Your task to perform on an android device: stop showing notifications on the lock screen Image 0: 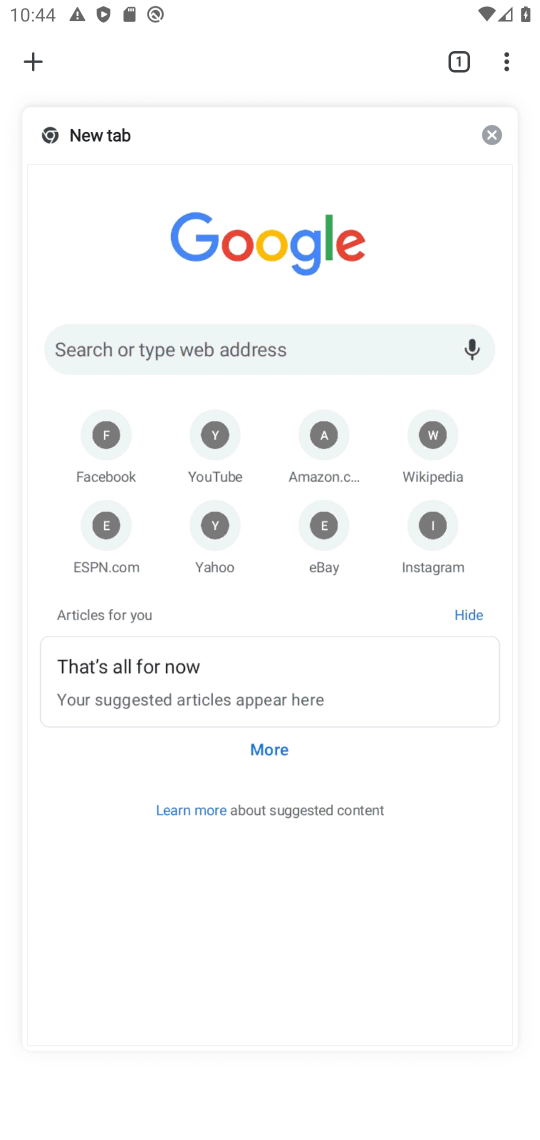
Step 0: press home button
Your task to perform on an android device: stop showing notifications on the lock screen Image 1: 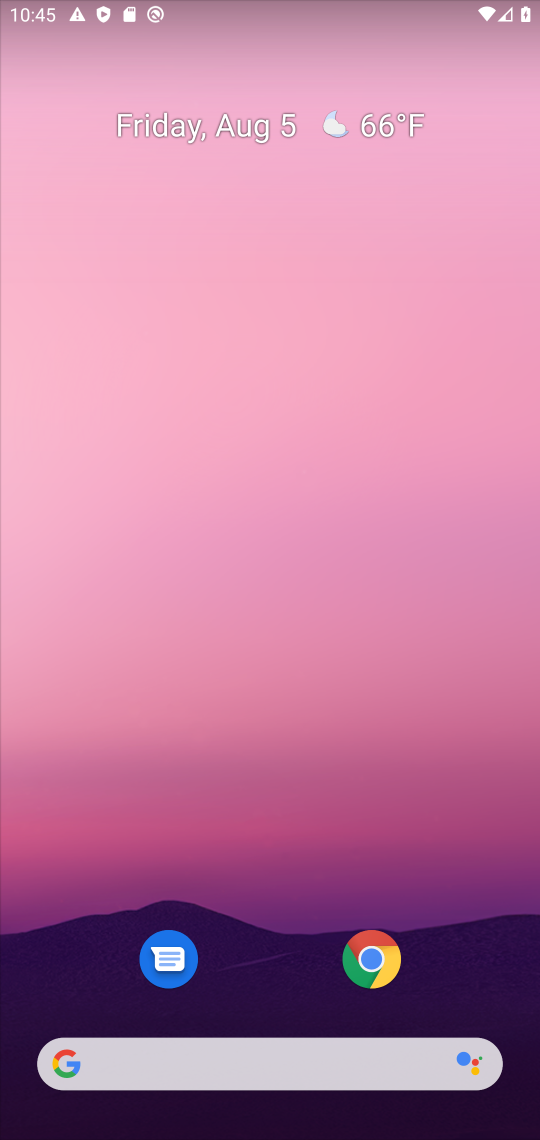
Step 1: drag from (297, 1007) to (195, 293)
Your task to perform on an android device: stop showing notifications on the lock screen Image 2: 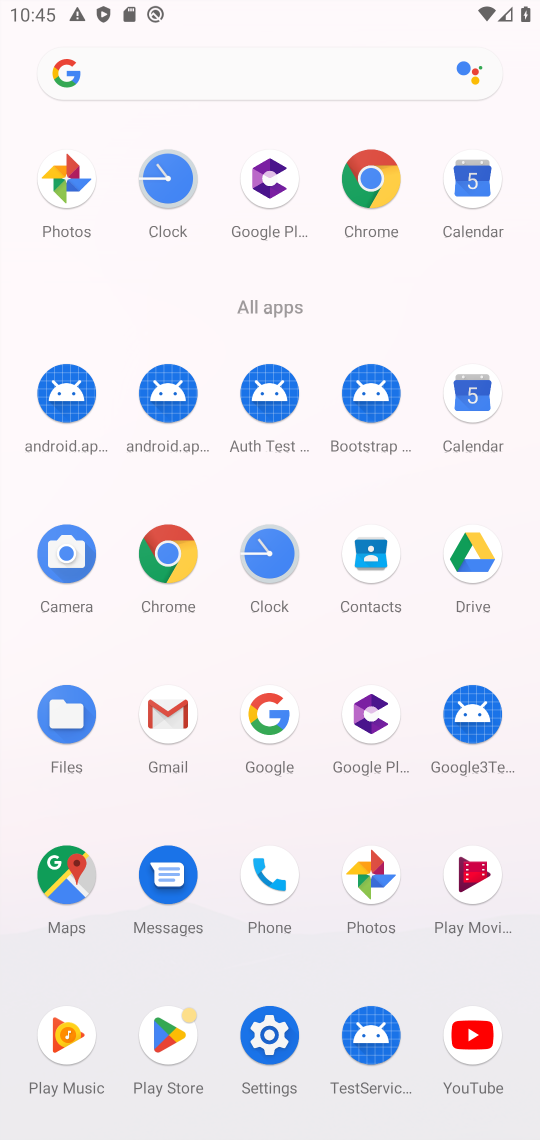
Step 2: click (267, 553)
Your task to perform on an android device: stop showing notifications on the lock screen Image 3: 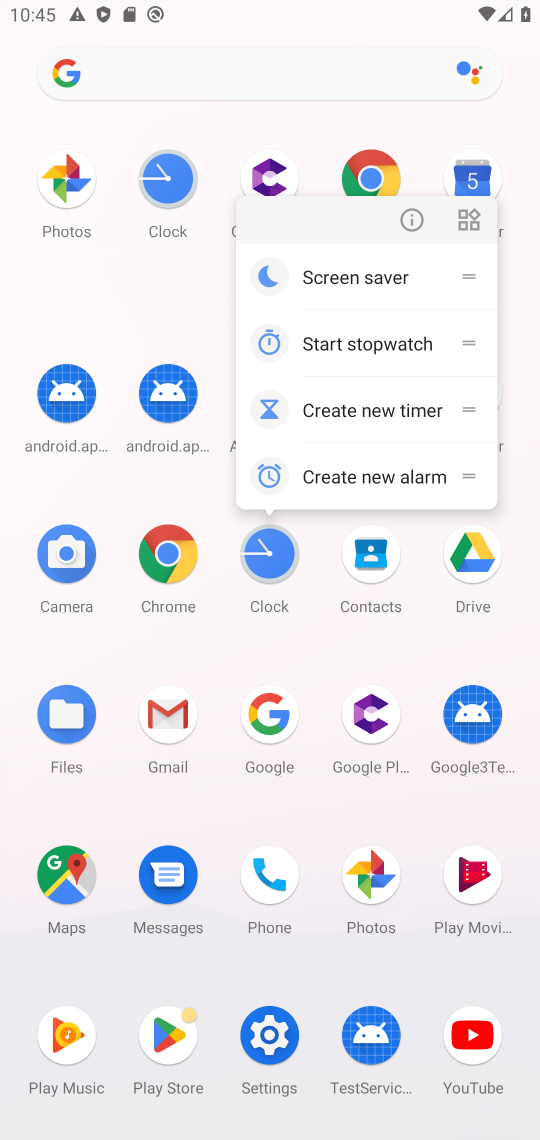
Step 3: click (283, 1041)
Your task to perform on an android device: stop showing notifications on the lock screen Image 4: 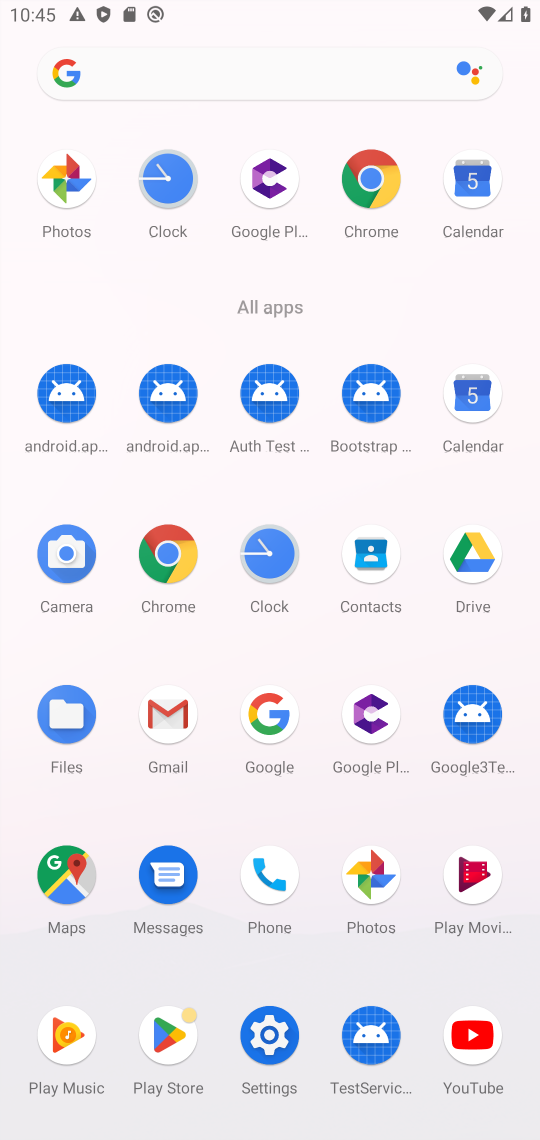
Step 4: click (266, 1044)
Your task to perform on an android device: stop showing notifications on the lock screen Image 5: 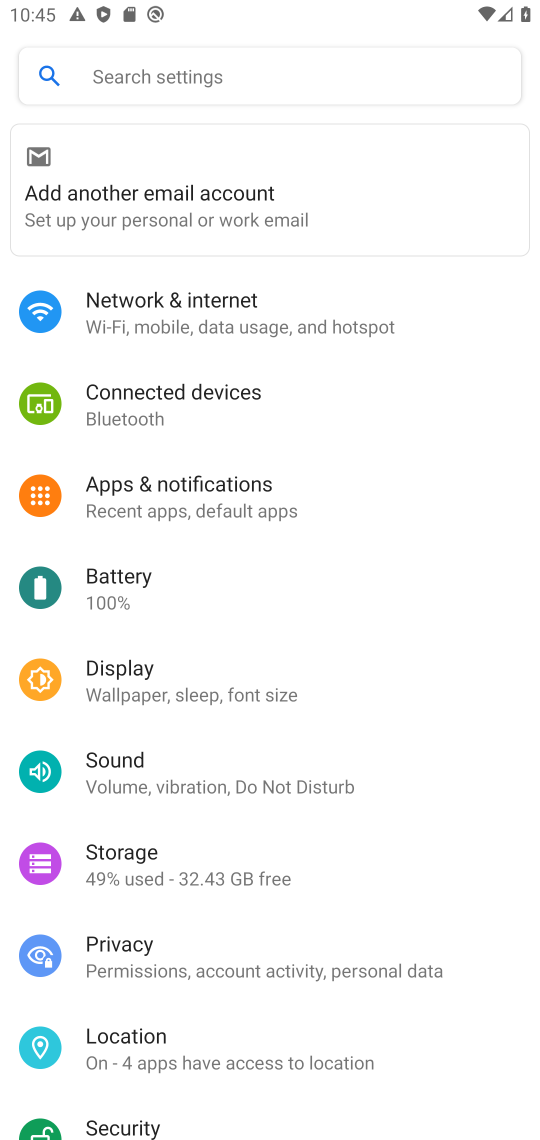
Step 5: click (190, 484)
Your task to perform on an android device: stop showing notifications on the lock screen Image 6: 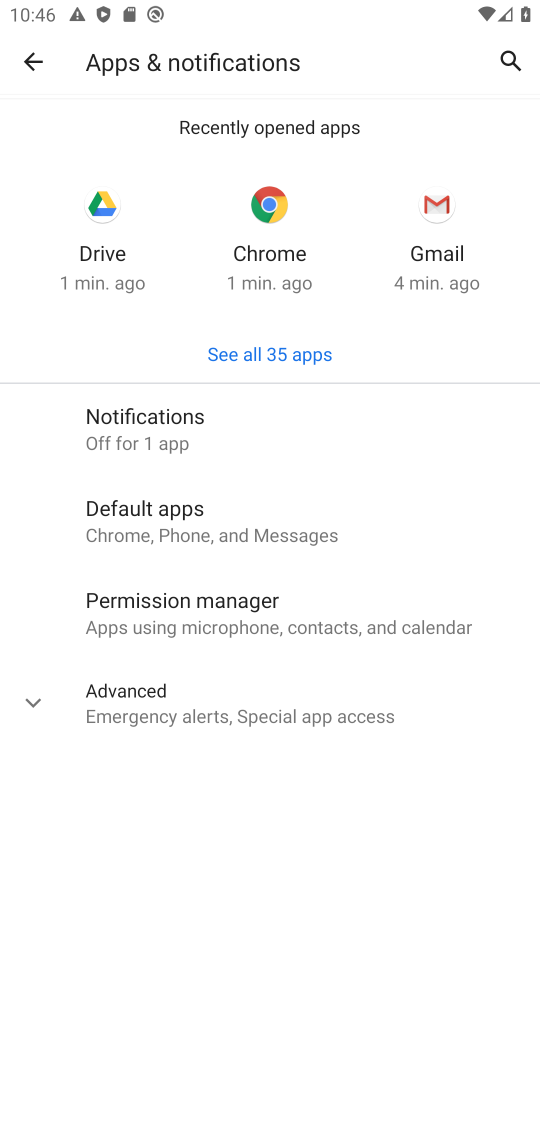
Step 6: click (189, 436)
Your task to perform on an android device: stop showing notifications on the lock screen Image 7: 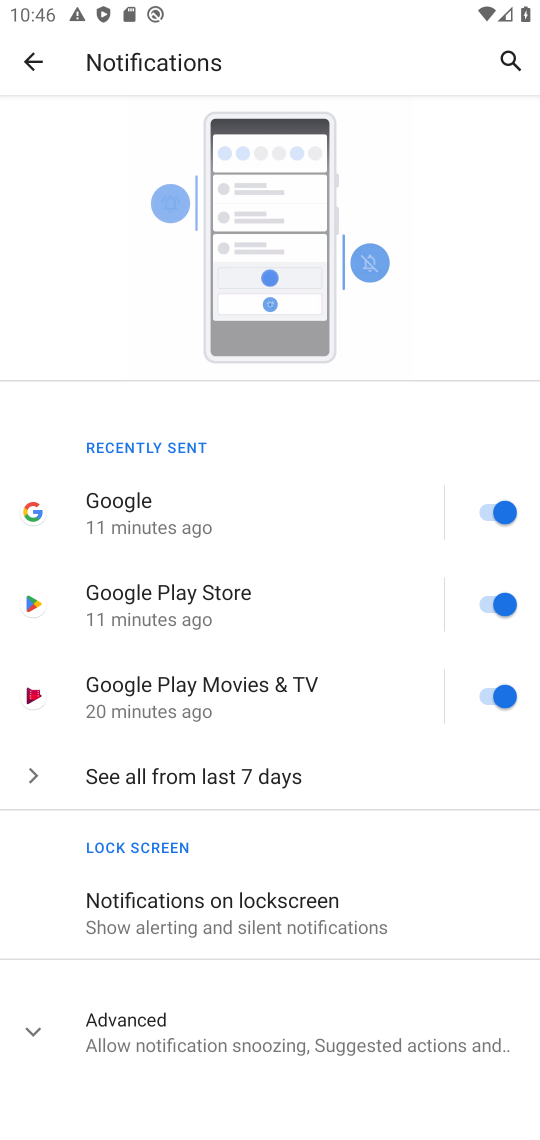
Step 7: click (310, 929)
Your task to perform on an android device: stop showing notifications on the lock screen Image 8: 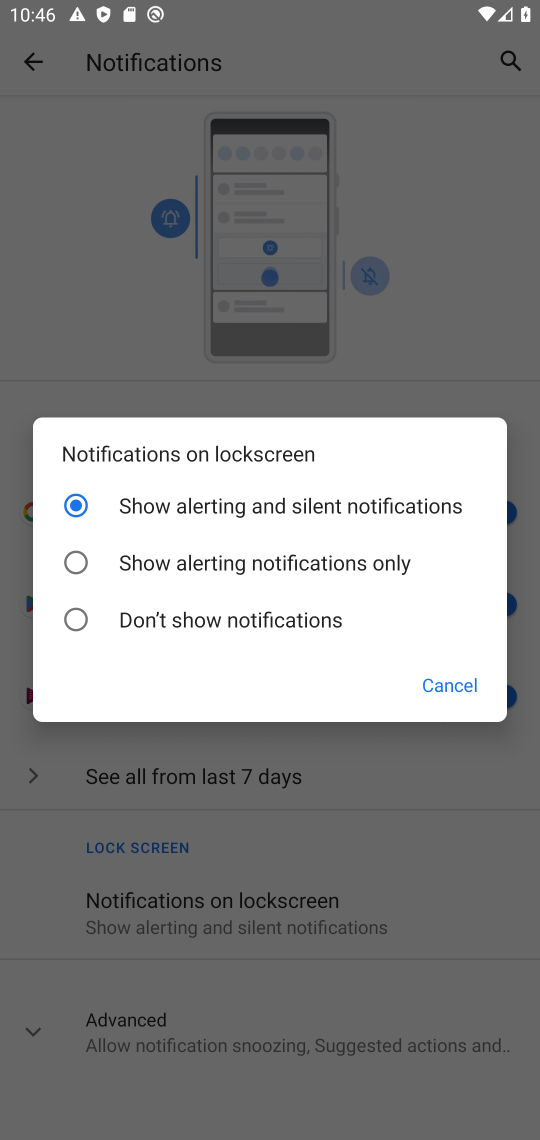
Step 8: click (227, 631)
Your task to perform on an android device: stop showing notifications on the lock screen Image 9: 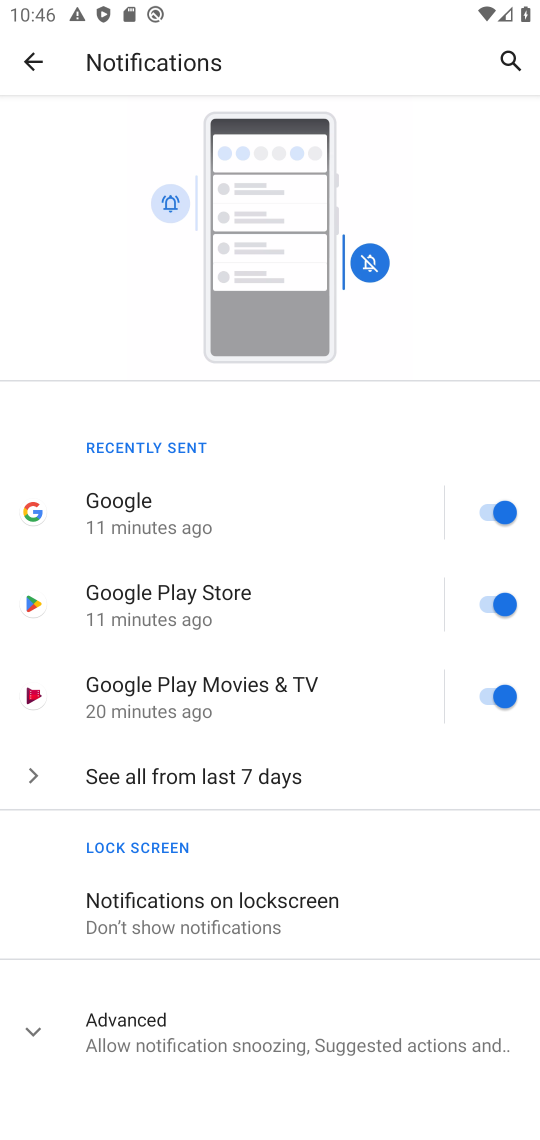
Step 9: task complete